Your task to perform on an android device: check battery use Image 0: 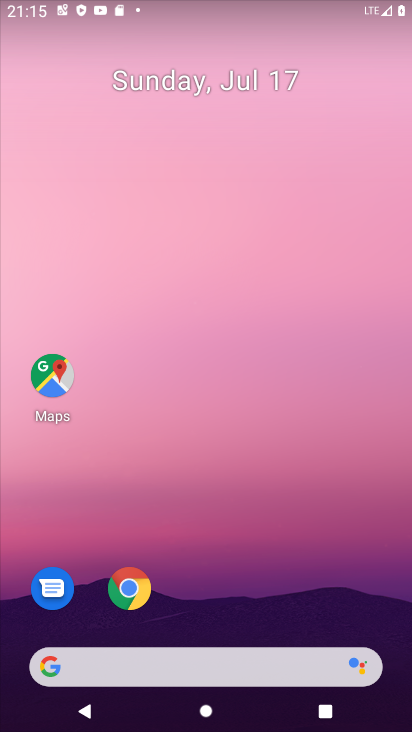
Step 0: drag from (253, 631) to (314, 13)
Your task to perform on an android device: check battery use Image 1: 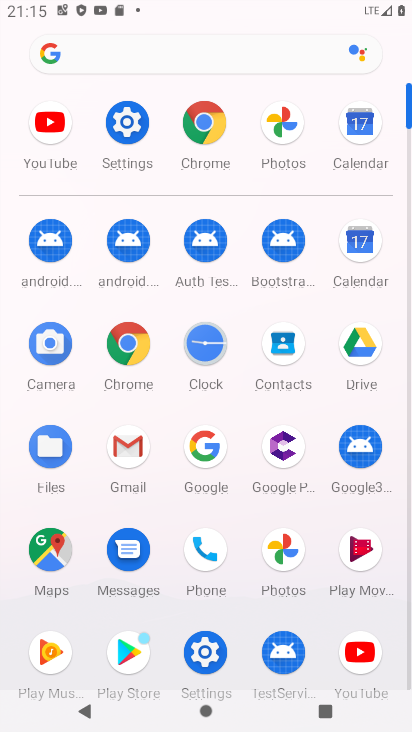
Step 1: click (108, 131)
Your task to perform on an android device: check battery use Image 2: 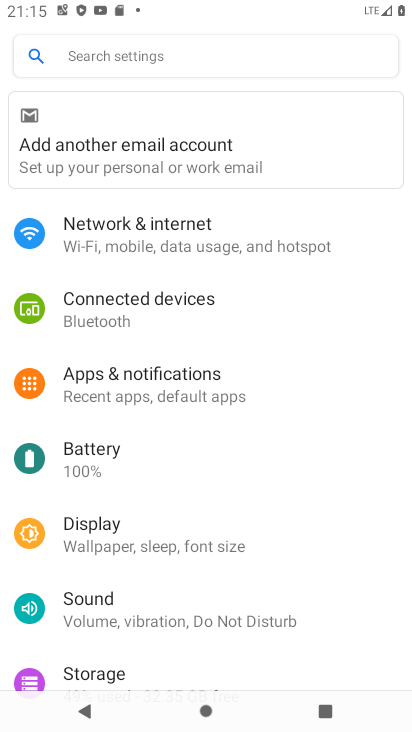
Step 2: drag from (144, 623) to (158, 264)
Your task to perform on an android device: check battery use Image 3: 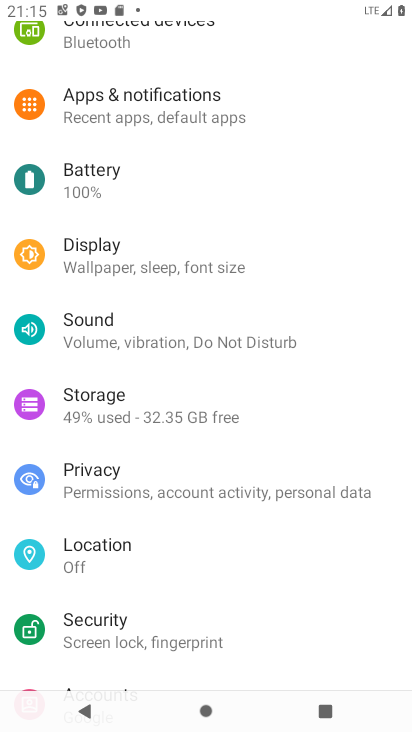
Step 3: click (103, 169)
Your task to perform on an android device: check battery use Image 4: 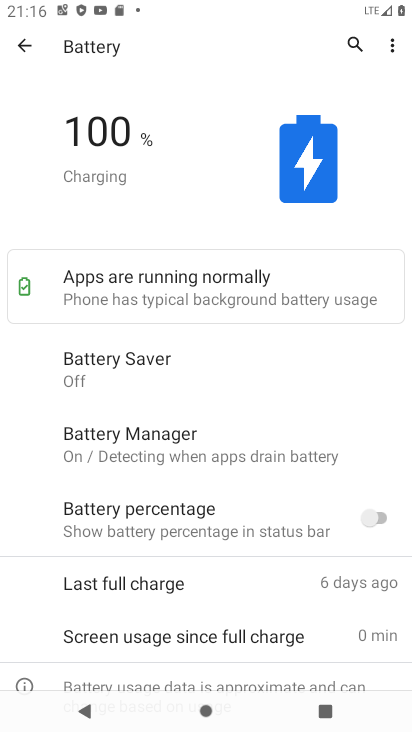
Step 4: task complete